Your task to perform on an android device: Open ESPN.com Image 0: 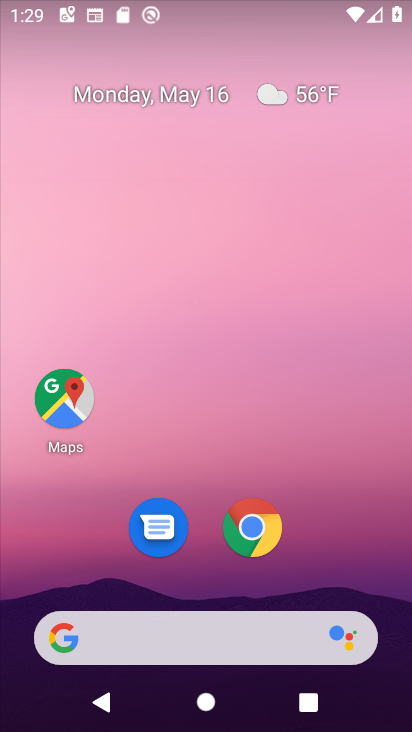
Step 0: click (277, 544)
Your task to perform on an android device: Open ESPN.com Image 1: 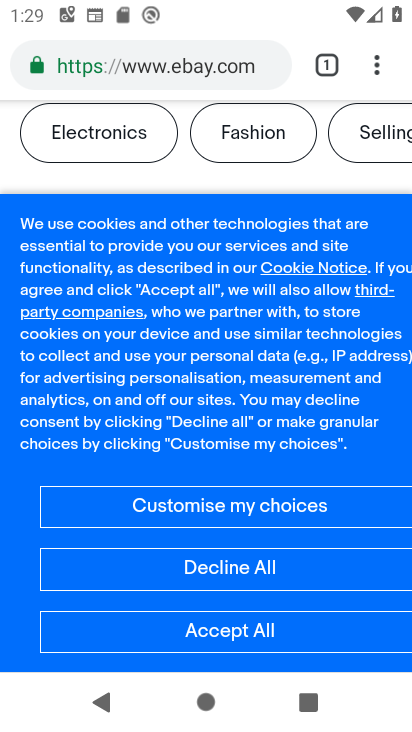
Step 1: click (188, 82)
Your task to perform on an android device: Open ESPN.com Image 2: 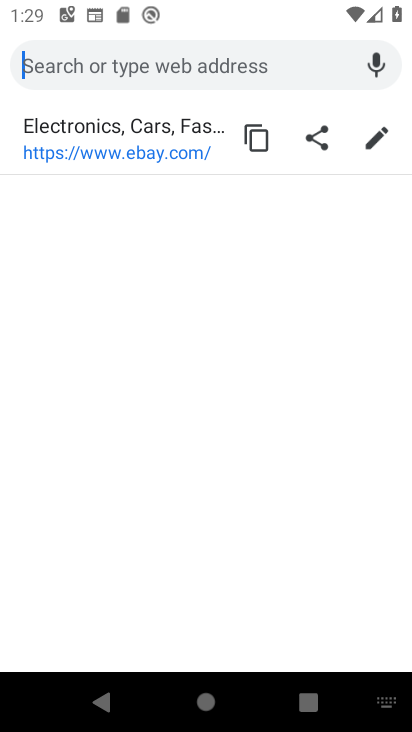
Step 2: type "espn.com"
Your task to perform on an android device: Open ESPN.com Image 3: 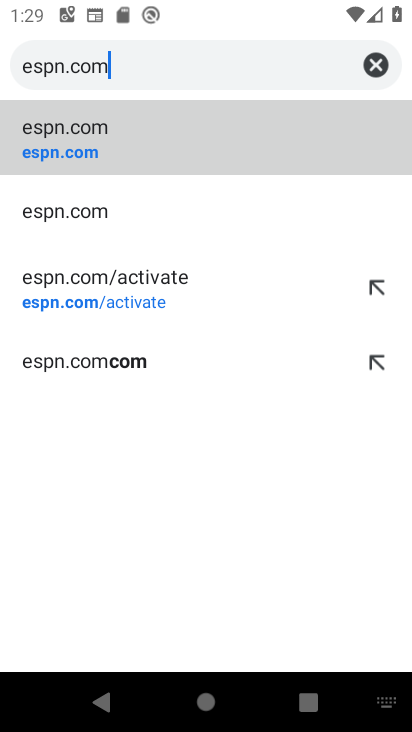
Step 3: click (340, 472)
Your task to perform on an android device: Open ESPN.com Image 4: 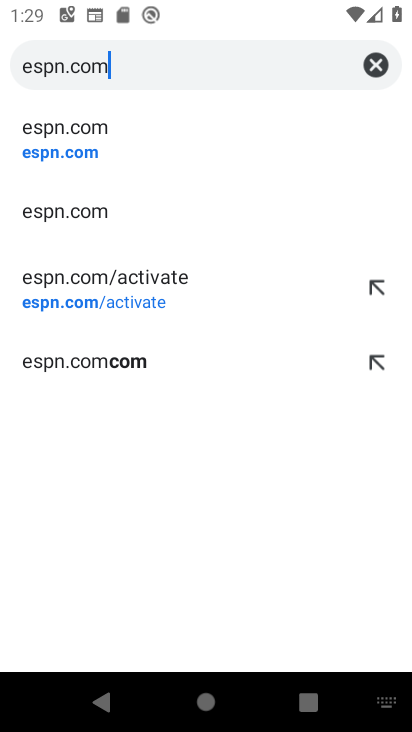
Step 4: click (178, 141)
Your task to perform on an android device: Open ESPN.com Image 5: 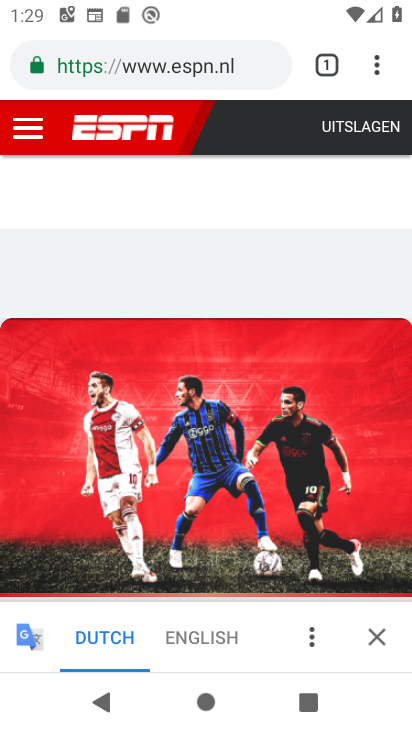
Step 5: task complete